Your task to perform on an android device: toggle data saver in the chrome app Image 0: 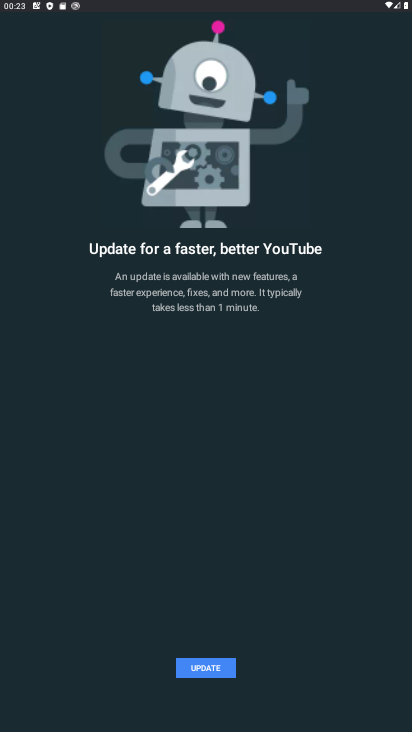
Step 0: press home button
Your task to perform on an android device: toggle data saver in the chrome app Image 1: 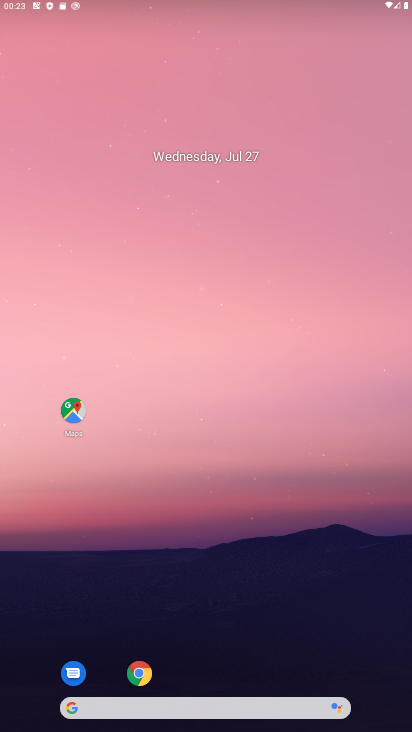
Step 1: drag from (298, 639) to (285, 113)
Your task to perform on an android device: toggle data saver in the chrome app Image 2: 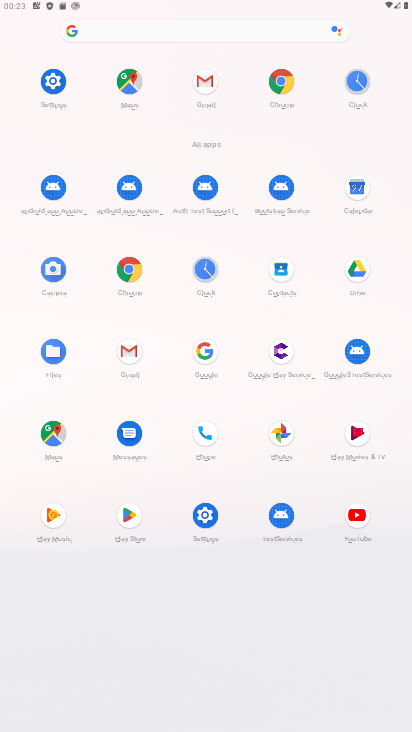
Step 2: click (284, 77)
Your task to perform on an android device: toggle data saver in the chrome app Image 3: 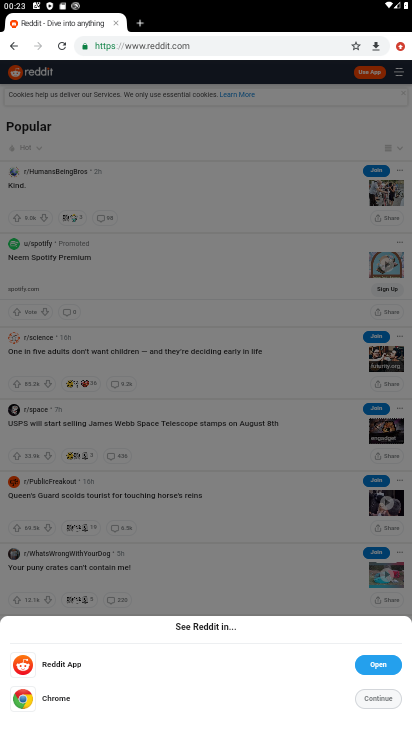
Step 3: drag from (403, 39) to (308, 336)
Your task to perform on an android device: toggle data saver in the chrome app Image 4: 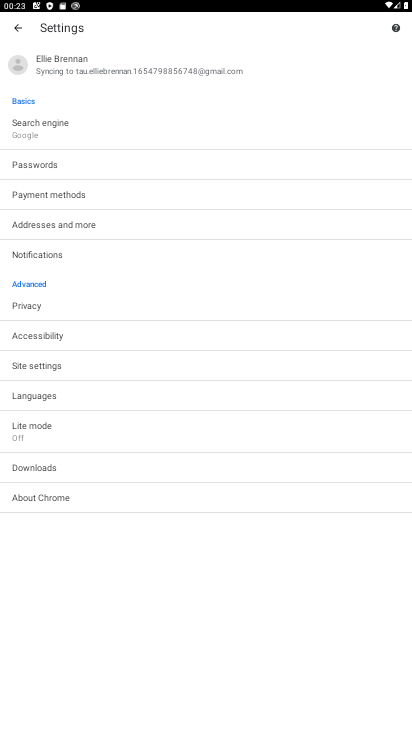
Step 4: click (56, 428)
Your task to perform on an android device: toggle data saver in the chrome app Image 5: 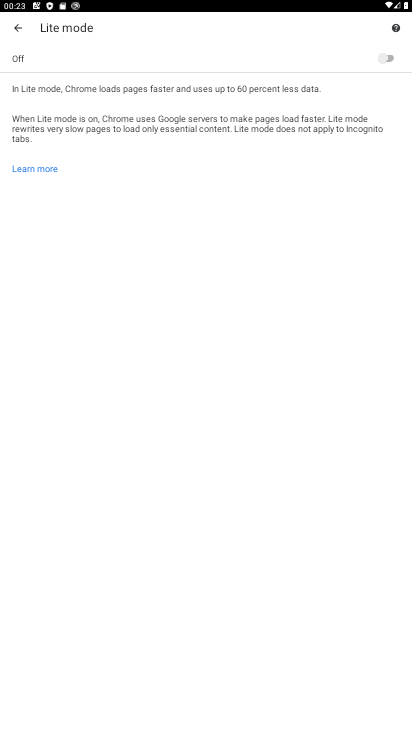
Step 5: click (379, 58)
Your task to perform on an android device: toggle data saver in the chrome app Image 6: 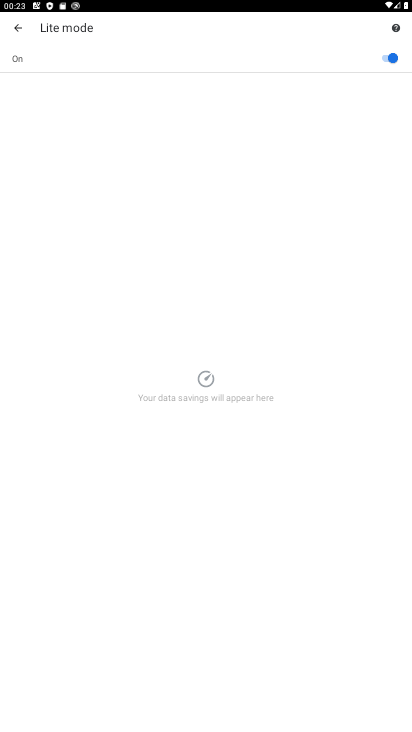
Step 6: task complete